Your task to perform on an android device: Open Reddit.com Image 0: 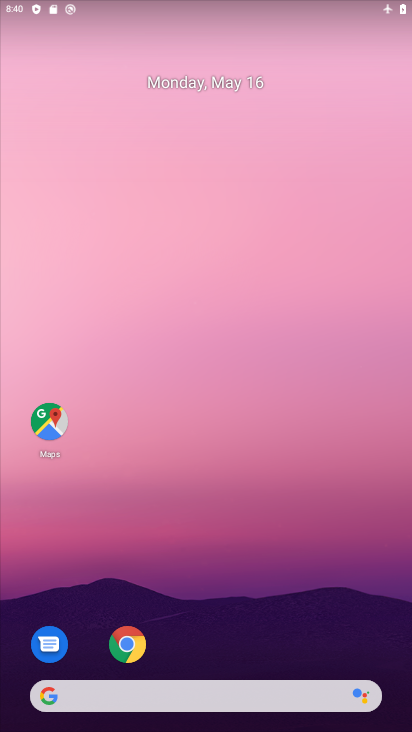
Step 0: click (189, 694)
Your task to perform on an android device: Open Reddit.com Image 1: 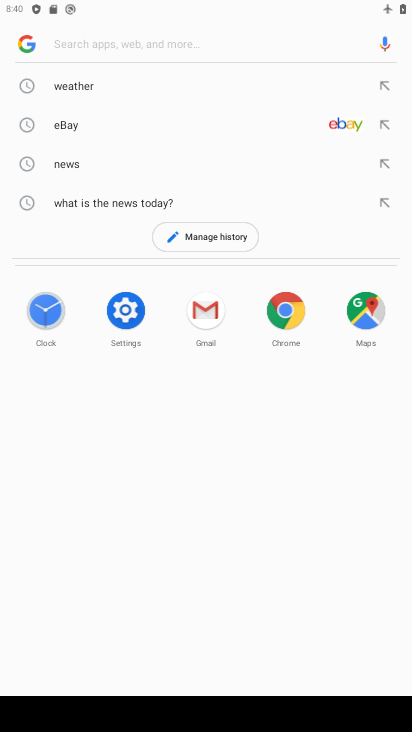
Step 1: type "reddit.com"
Your task to perform on an android device: Open Reddit.com Image 2: 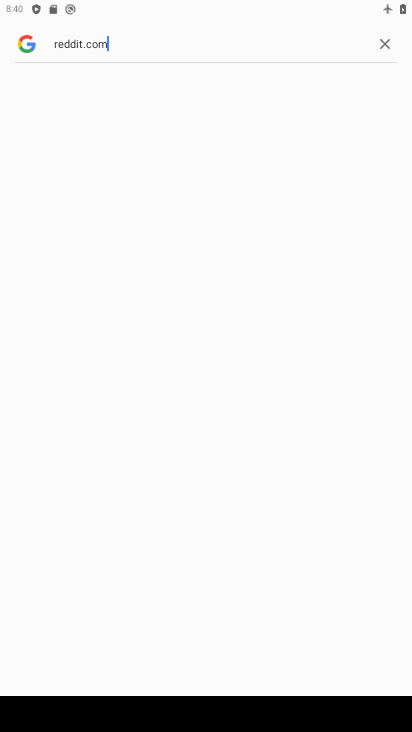
Step 2: task complete